Your task to perform on an android device: Go to location settings Image 0: 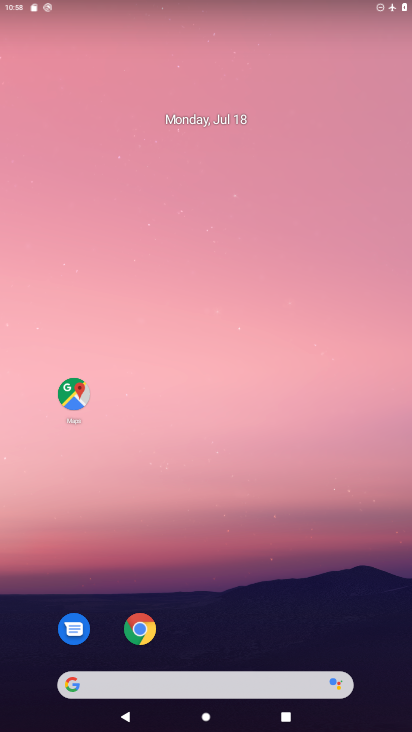
Step 0: drag from (313, 561) to (283, 53)
Your task to perform on an android device: Go to location settings Image 1: 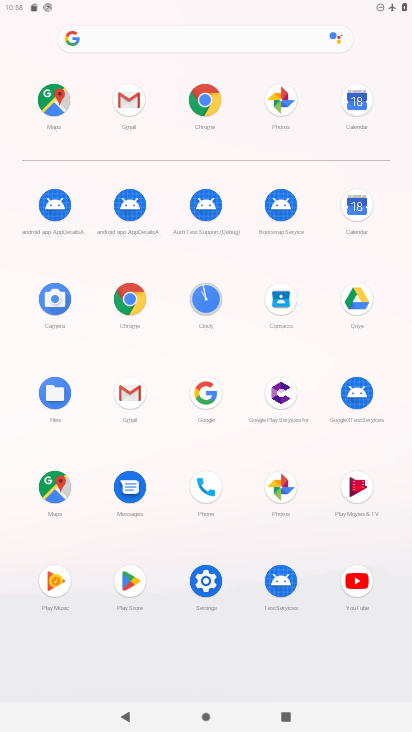
Step 1: click (210, 584)
Your task to perform on an android device: Go to location settings Image 2: 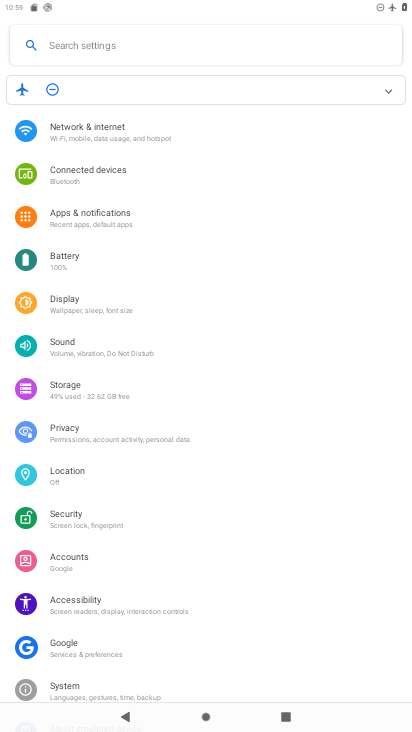
Step 2: click (79, 468)
Your task to perform on an android device: Go to location settings Image 3: 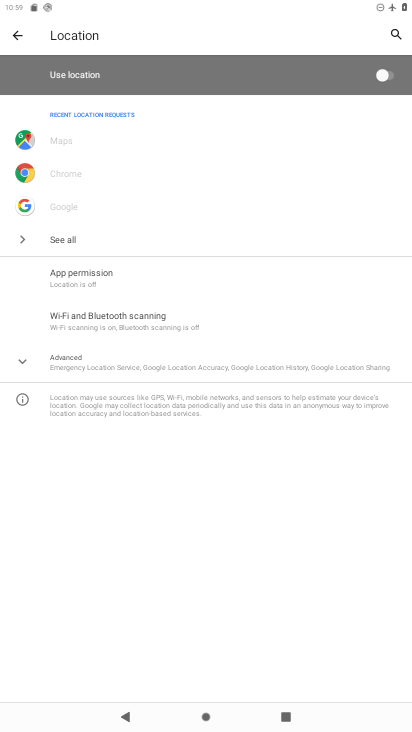
Step 3: task complete